Your task to perform on an android device: change alarm snooze length Image 0: 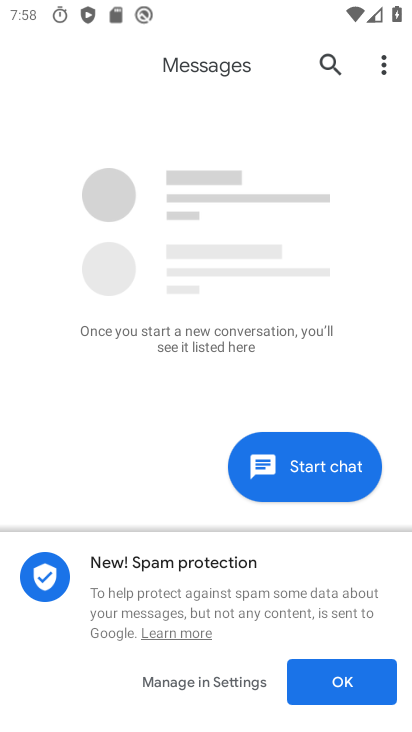
Step 0: press home button
Your task to perform on an android device: change alarm snooze length Image 1: 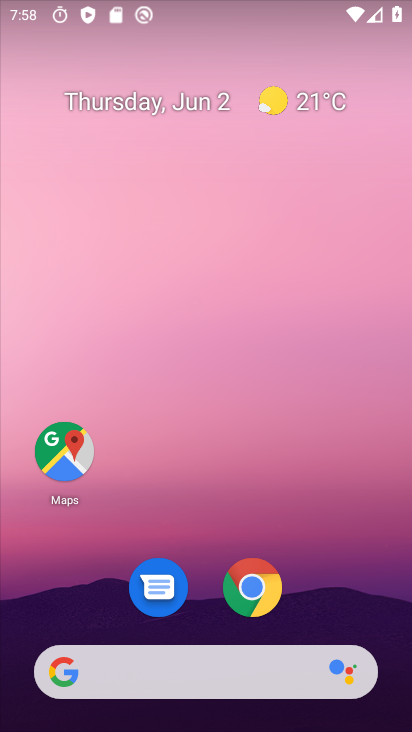
Step 1: drag from (357, 642) to (329, 9)
Your task to perform on an android device: change alarm snooze length Image 2: 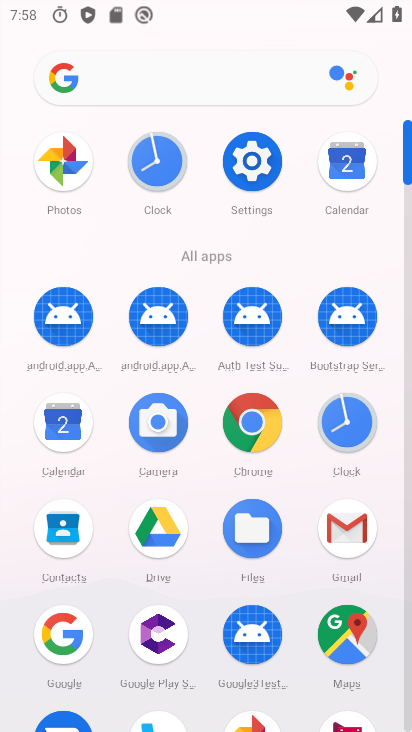
Step 2: click (156, 163)
Your task to perform on an android device: change alarm snooze length Image 3: 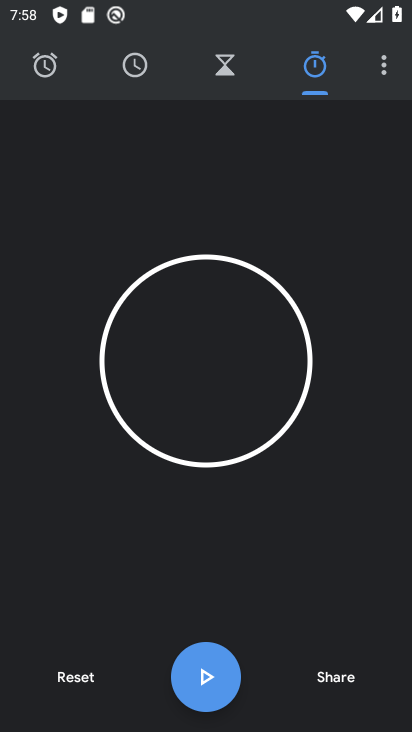
Step 3: click (386, 67)
Your task to perform on an android device: change alarm snooze length Image 4: 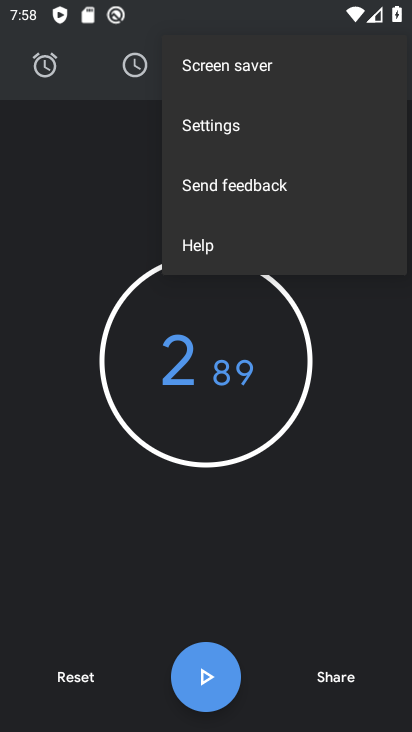
Step 4: click (211, 130)
Your task to perform on an android device: change alarm snooze length Image 5: 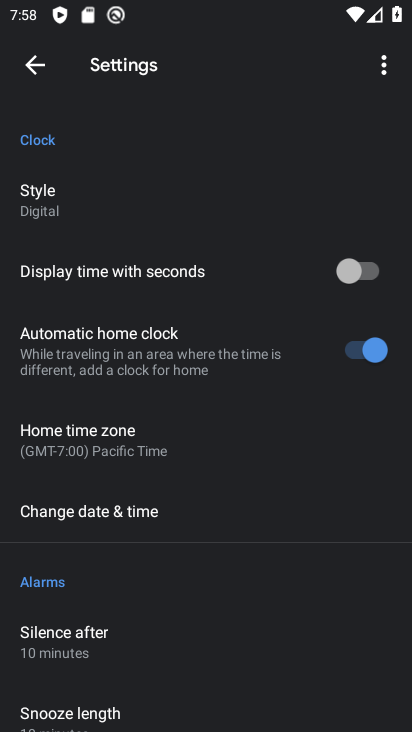
Step 5: drag from (203, 573) to (211, 180)
Your task to perform on an android device: change alarm snooze length Image 6: 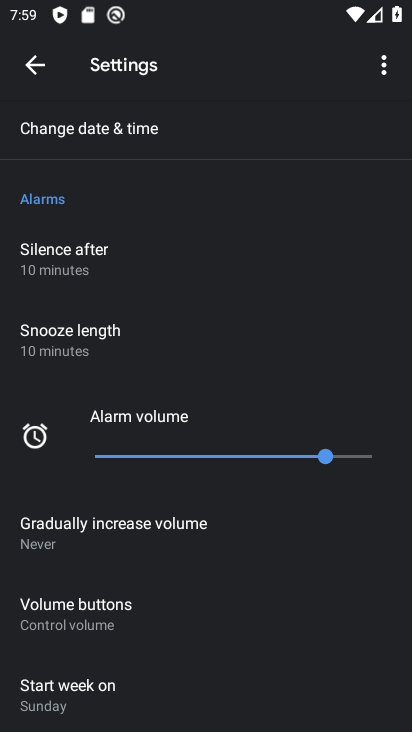
Step 6: click (51, 351)
Your task to perform on an android device: change alarm snooze length Image 7: 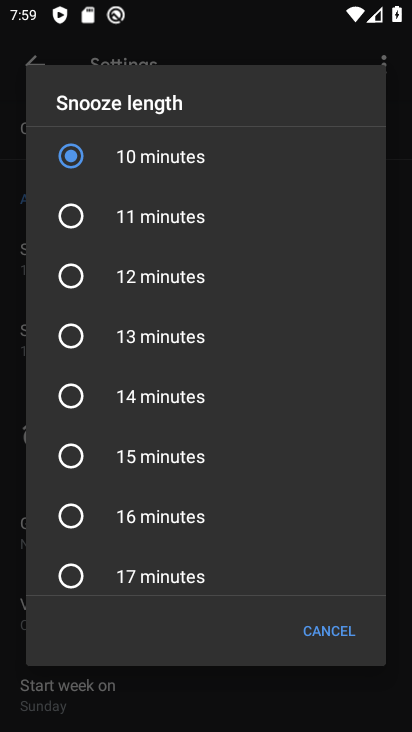
Step 7: click (79, 276)
Your task to perform on an android device: change alarm snooze length Image 8: 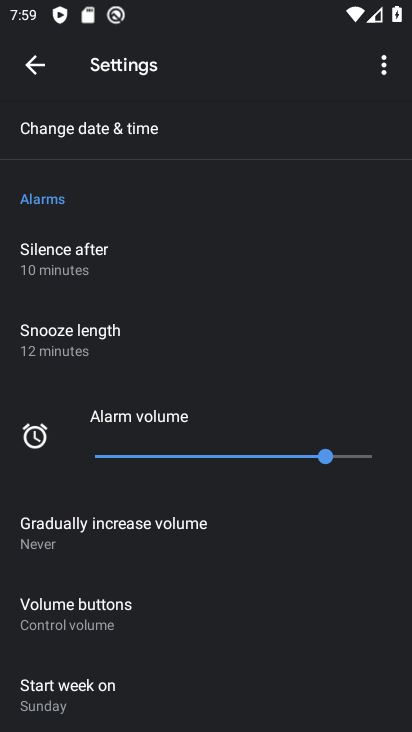
Step 8: task complete